Your task to perform on an android device: Do I have any events tomorrow? Image 0: 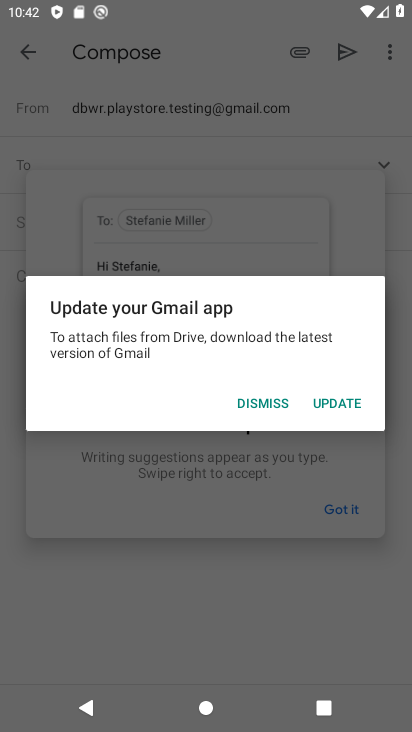
Step 0: press home button
Your task to perform on an android device: Do I have any events tomorrow? Image 1: 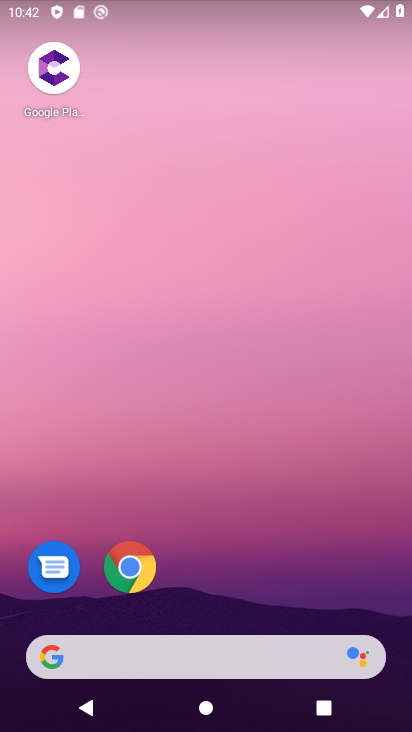
Step 1: drag from (219, 597) to (285, 201)
Your task to perform on an android device: Do I have any events tomorrow? Image 2: 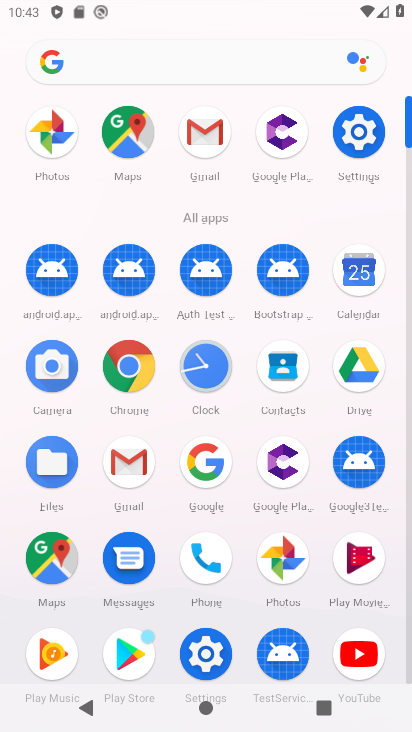
Step 2: click (357, 282)
Your task to perform on an android device: Do I have any events tomorrow? Image 3: 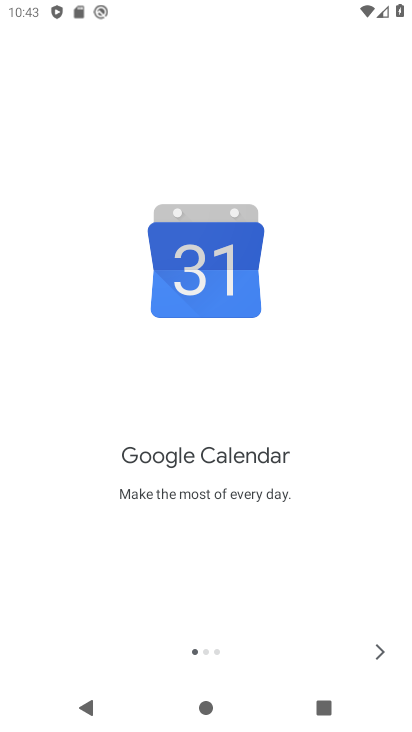
Step 3: click (373, 645)
Your task to perform on an android device: Do I have any events tomorrow? Image 4: 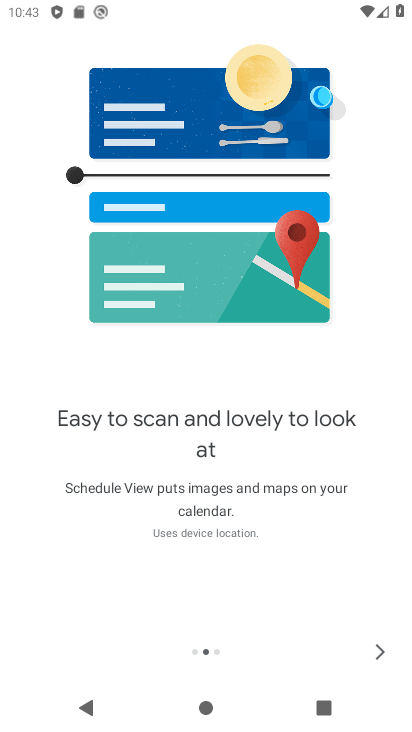
Step 4: click (385, 655)
Your task to perform on an android device: Do I have any events tomorrow? Image 5: 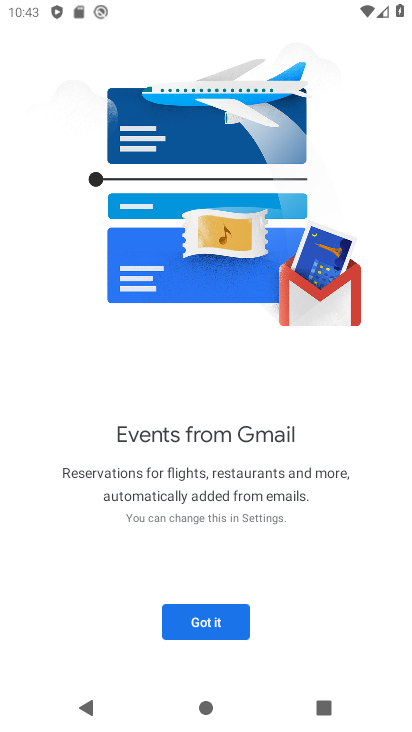
Step 5: click (192, 627)
Your task to perform on an android device: Do I have any events tomorrow? Image 6: 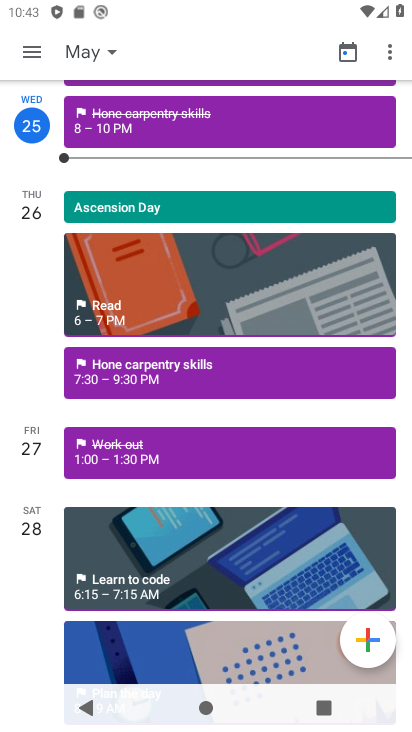
Step 6: click (31, 46)
Your task to perform on an android device: Do I have any events tomorrow? Image 7: 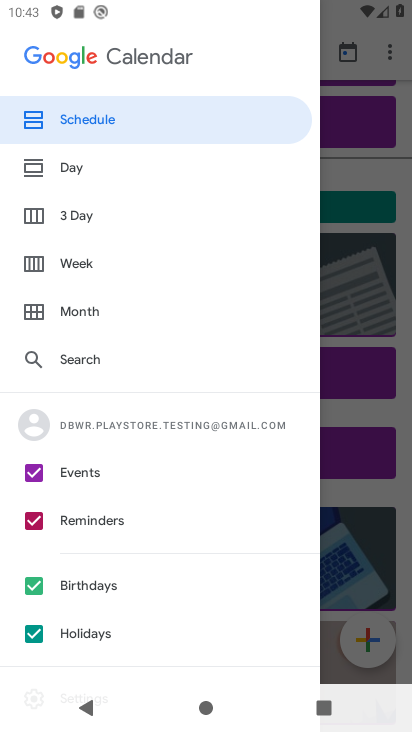
Step 7: click (106, 514)
Your task to perform on an android device: Do I have any events tomorrow? Image 8: 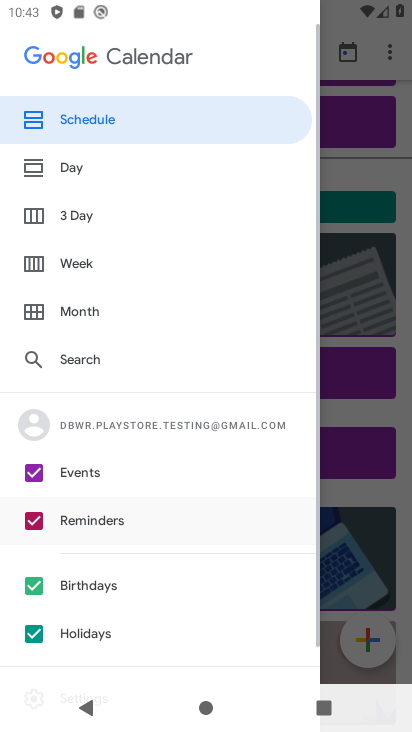
Step 8: click (87, 590)
Your task to perform on an android device: Do I have any events tomorrow? Image 9: 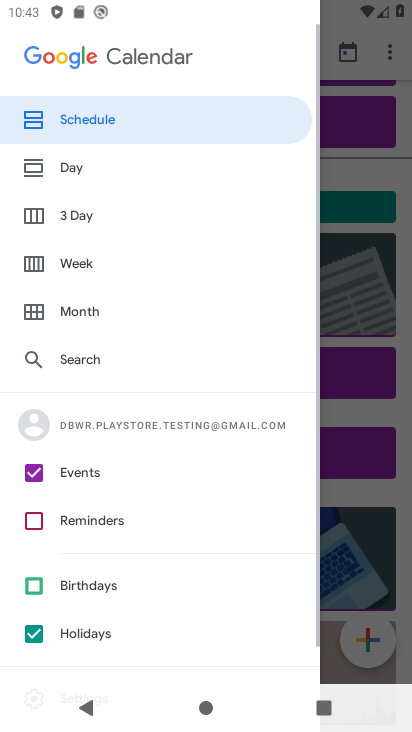
Step 9: click (81, 631)
Your task to perform on an android device: Do I have any events tomorrow? Image 10: 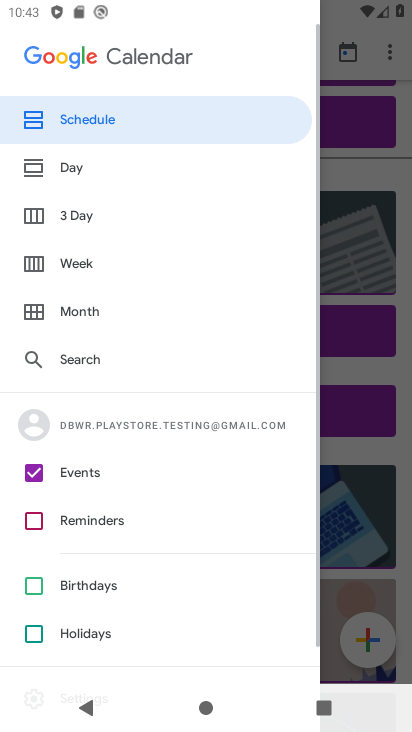
Step 10: click (79, 214)
Your task to perform on an android device: Do I have any events tomorrow? Image 11: 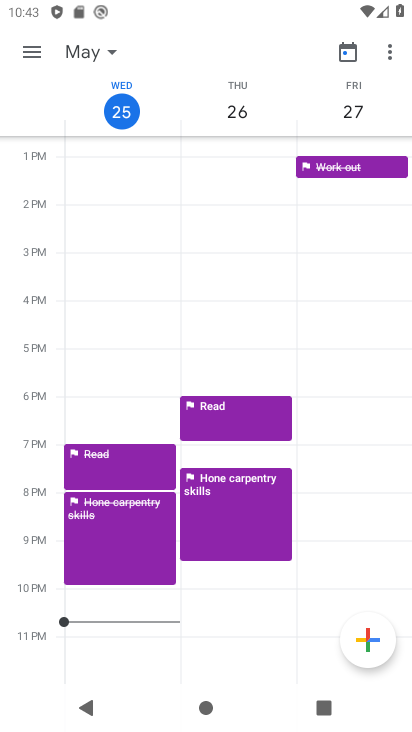
Step 11: task complete